Your task to perform on an android device: turn on translation in the chrome app Image 0: 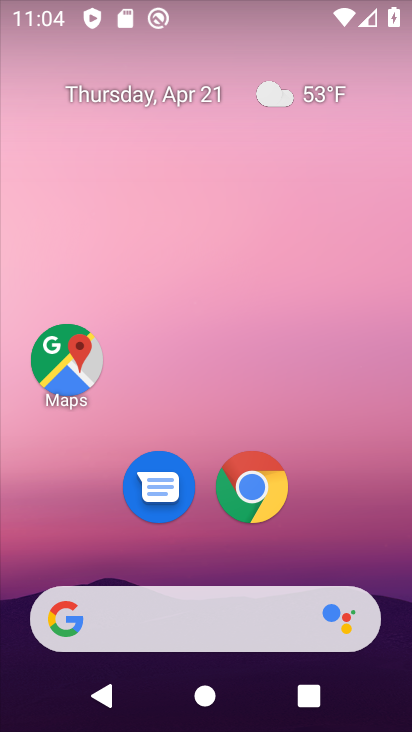
Step 0: drag from (341, 407) to (365, 42)
Your task to perform on an android device: turn on translation in the chrome app Image 1: 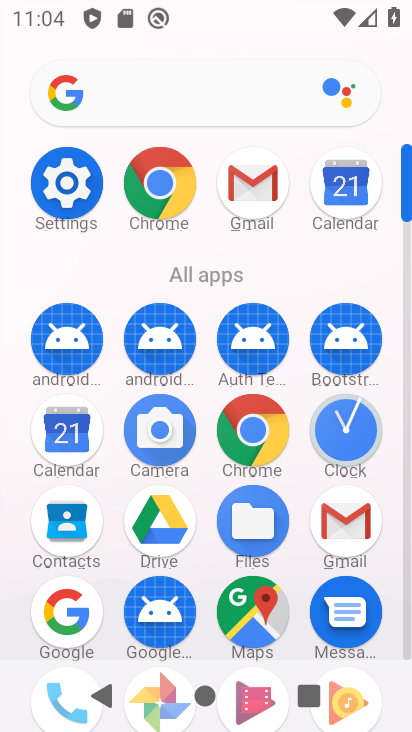
Step 1: click (168, 170)
Your task to perform on an android device: turn on translation in the chrome app Image 2: 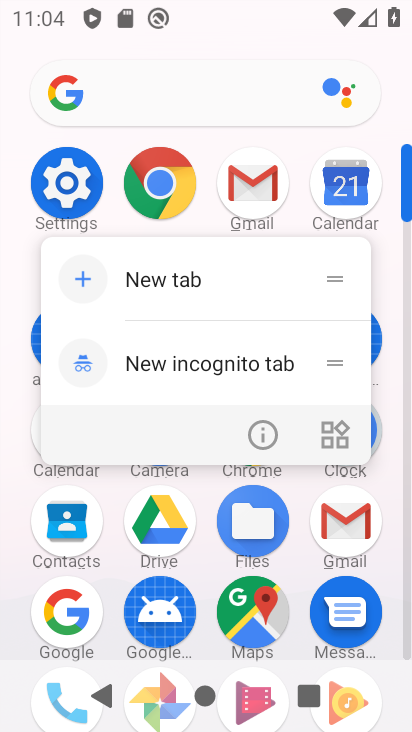
Step 2: click (168, 170)
Your task to perform on an android device: turn on translation in the chrome app Image 3: 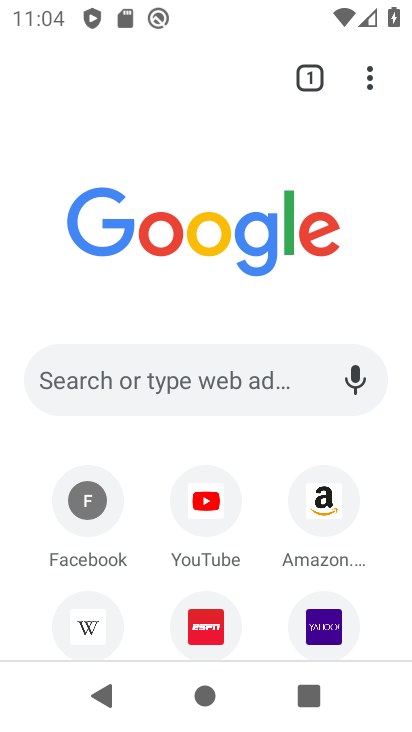
Step 3: click (378, 88)
Your task to perform on an android device: turn on translation in the chrome app Image 4: 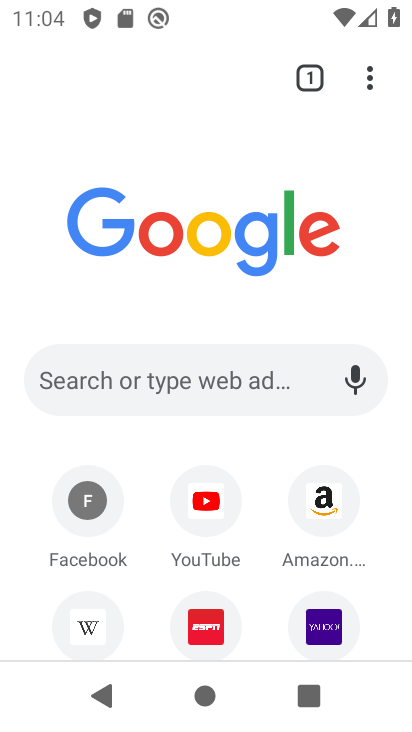
Step 4: drag from (378, 88) to (130, 547)
Your task to perform on an android device: turn on translation in the chrome app Image 5: 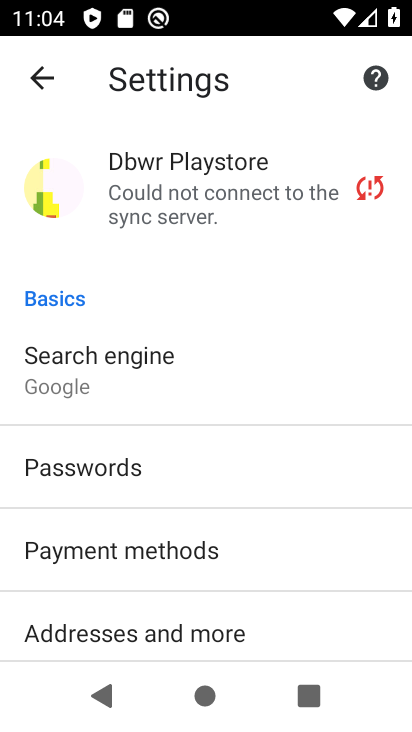
Step 5: drag from (186, 552) to (209, 269)
Your task to perform on an android device: turn on translation in the chrome app Image 6: 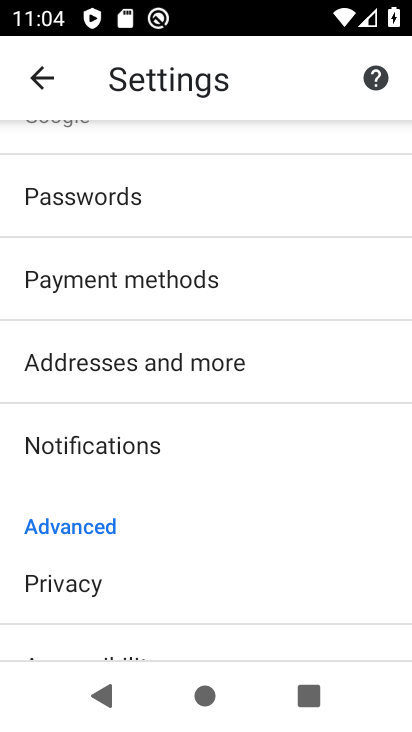
Step 6: drag from (158, 604) to (216, 221)
Your task to perform on an android device: turn on translation in the chrome app Image 7: 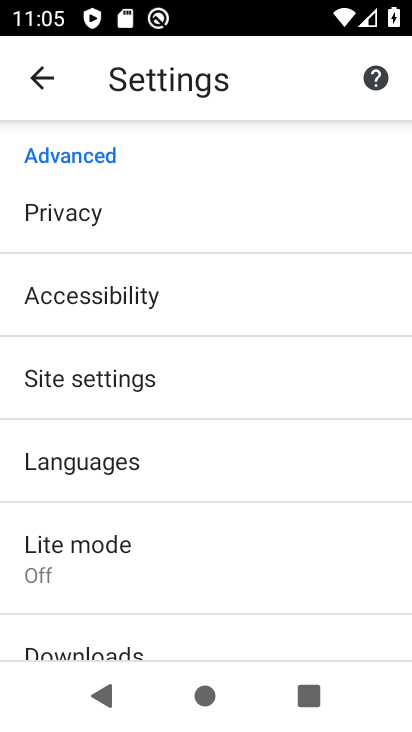
Step 7: click (91, 469)
Your task to perform on an android device: turn on translation in the chrome app Image 8: 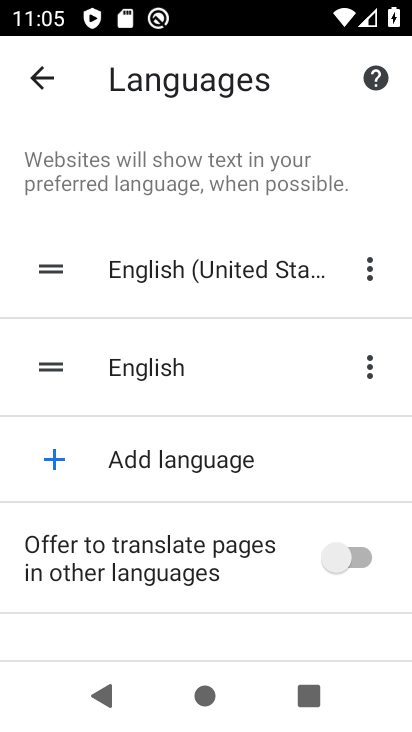
Step 8: click (335, 565)
Your task to perform on an android device: turn on translation in the chrome app Image 9: 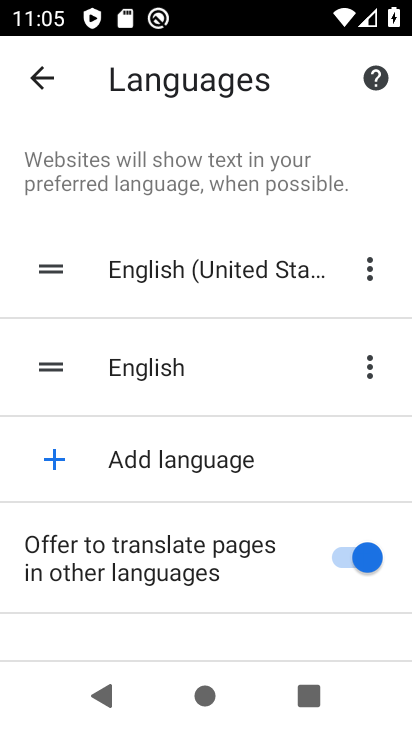
Step 9: task complete